Your task to perform on an android device: open app "Spotify: Music and Podcasts" (install if not already installed) Image 0: 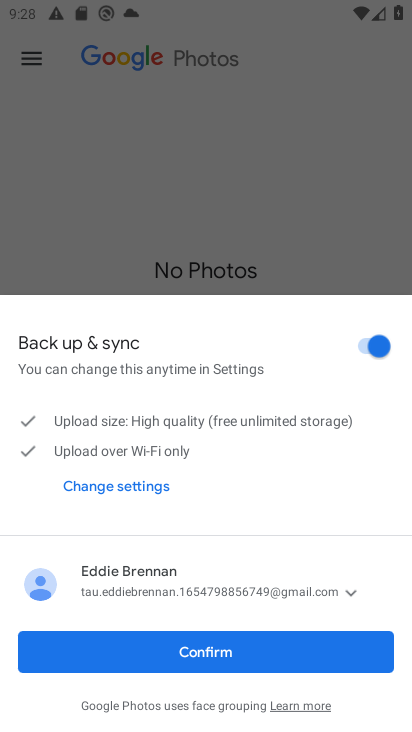
Step 0: press home button
Your task to perform on an android device: open app "Spotify: Music and Podcasts" (install if not already installed) Image 1: 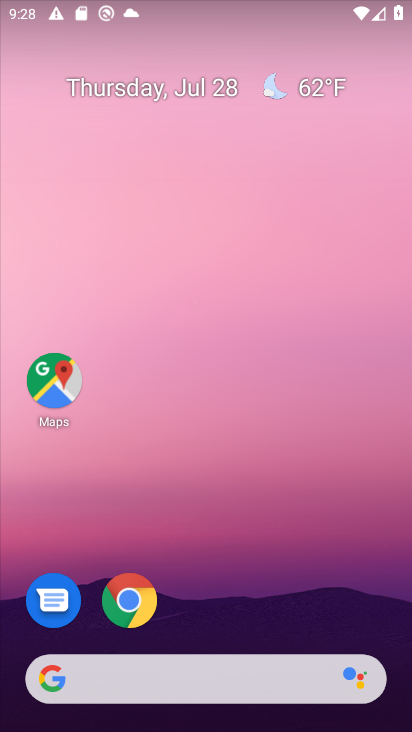
Step 1: drag from (234, 644) to (253, 114)
Your task to perform on an android device: open app "Spotify: Music and Podcasts" (install if not already installed) Image 2: 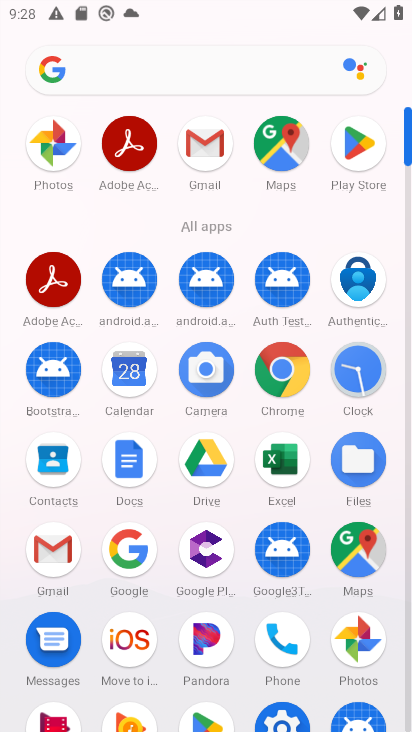
Step 2: click (345, 151)
Your task to perform on an android device: open app "Spotify: Music and Podcasts" (install if not already installed) Image 3: 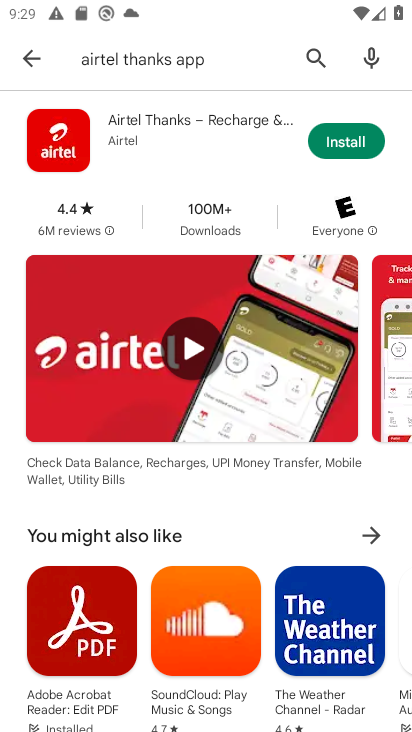
Step 3: click (151, 63)
Your task to perform on an android device: open app "Spotify: Music and Podcasts" (install if not already installed) Image 4: 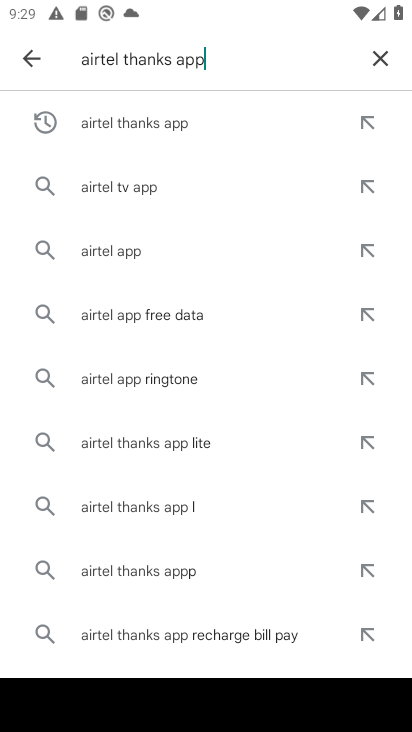
Step 4: click (368, 64)
Your task to perform on an android device: open app "Spotify: Music and Podcasts" (install if not already installed) Image 5: 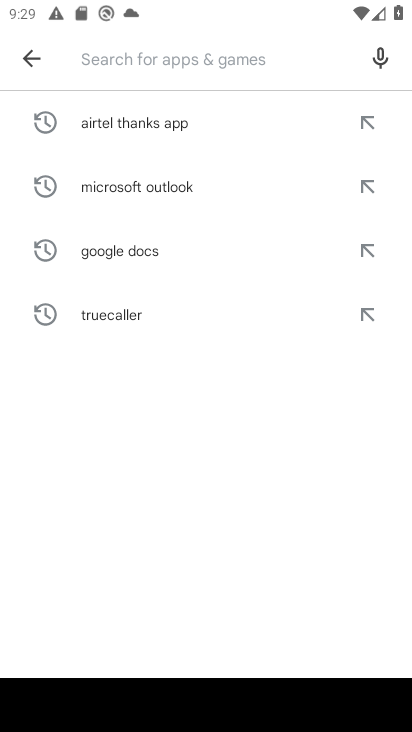
Step 5: click (221, 67)
Your task to perform on an android device: open app "Spotify: Music and Podcasts" (install if not already installed) Image 6: 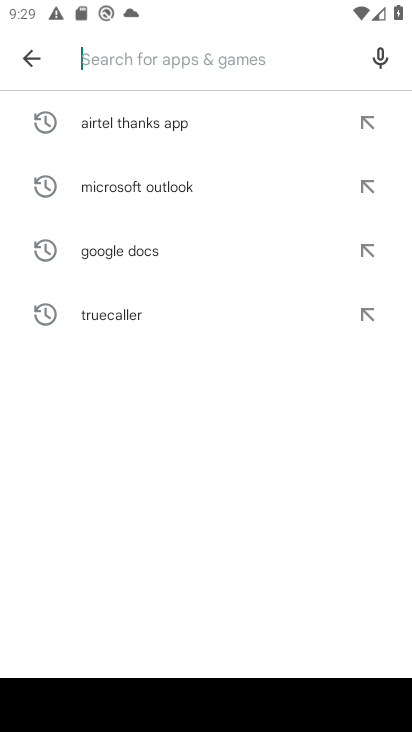
Step 6: type "Spotify: Music and Podcasts"
Your task to perform on an android device: open app "Spotify: Music and Podcasts" (install if not already installed) Image 7: 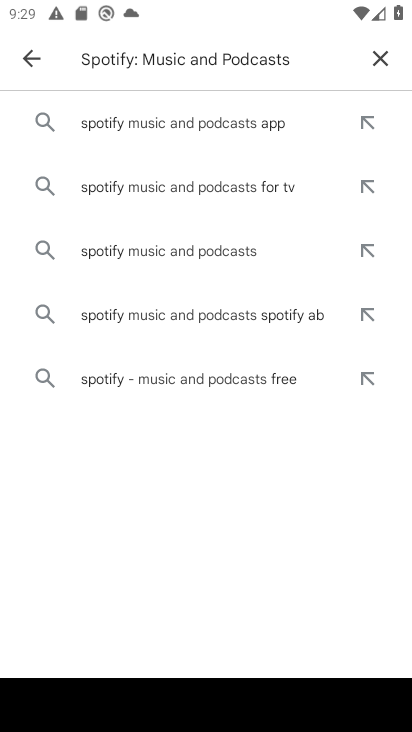
Step 7: click (157, 124)
Your task to perform on an android device: open app "Spotify: Music and Podcasts" (install if not already installed) Image 8: 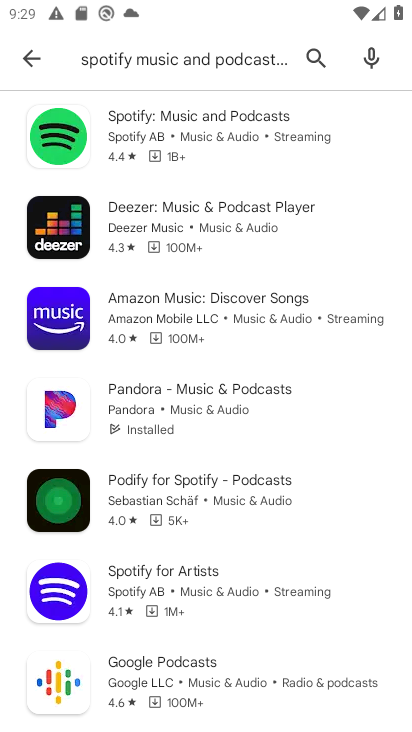
Step 8: click (157, 124)
Your task to perform on an android device: open app "Spotify: Music and Podcasts" (install if not already installed) Image 9: 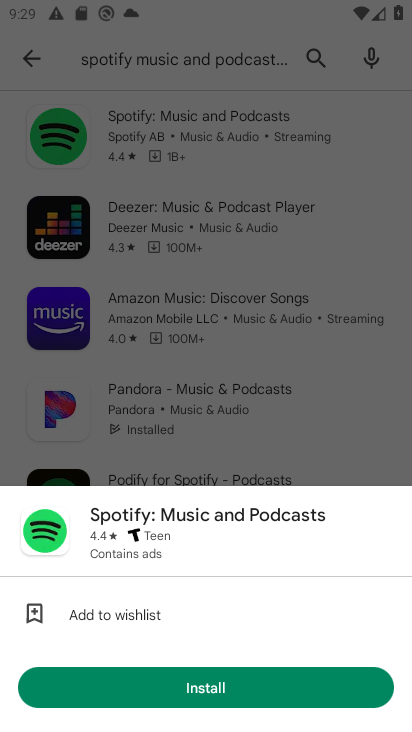
Step 9: click (198, 682)
Your task to perform on an android device: open app "Spotify: Music and Podcasts" (install if not already installed) Image 10: 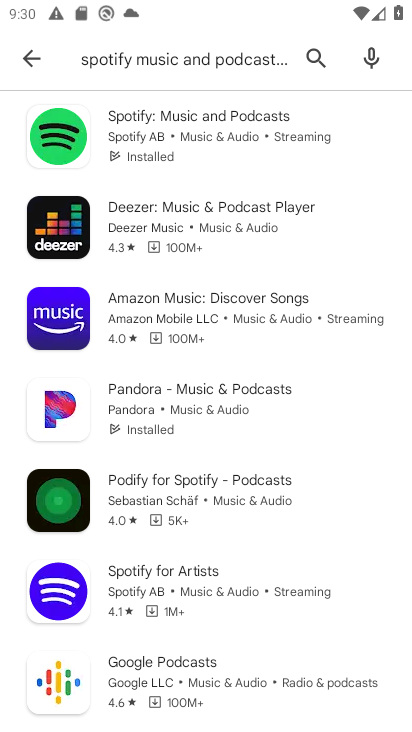
Step 10: click (176, 127)
Your task to perform on an android device: open app "Spotify: Music and Podcasts" (install if not already installed) Image 11: 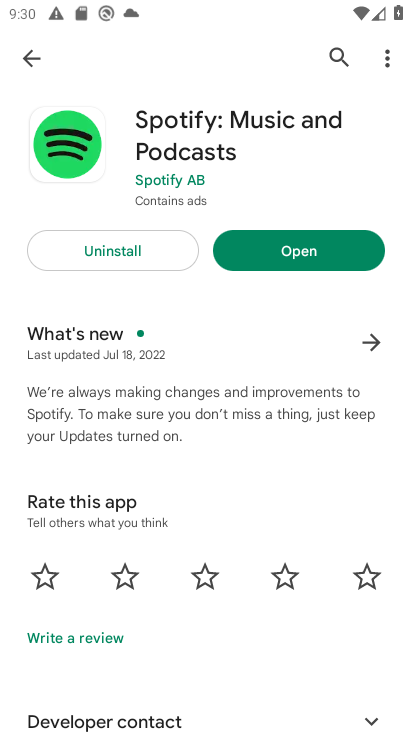
Step 11: click (293, 250)
Your task to perform on an android device: open app "Spotify: Music and Podcasts" (install if not already installed) Image 12: 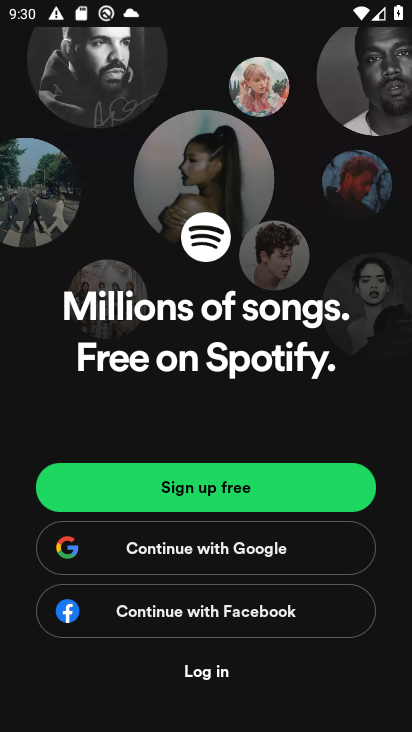
Step 12: task complete